Your task to perform on an android device: Open location settings Image 0: 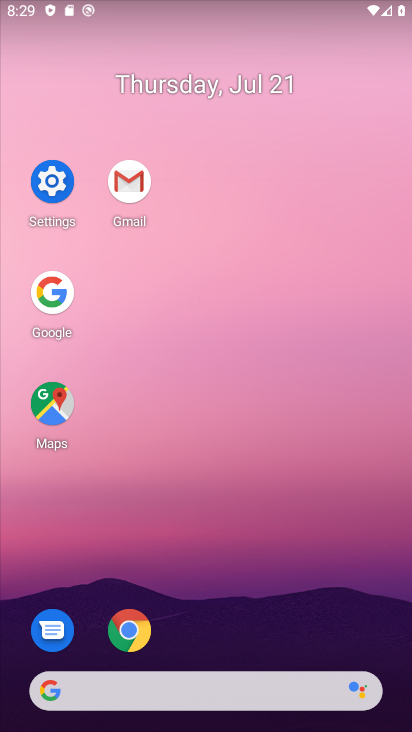
Step 0: click (46, 183)
Your task to perform on an android device: Open location settings Image 1: 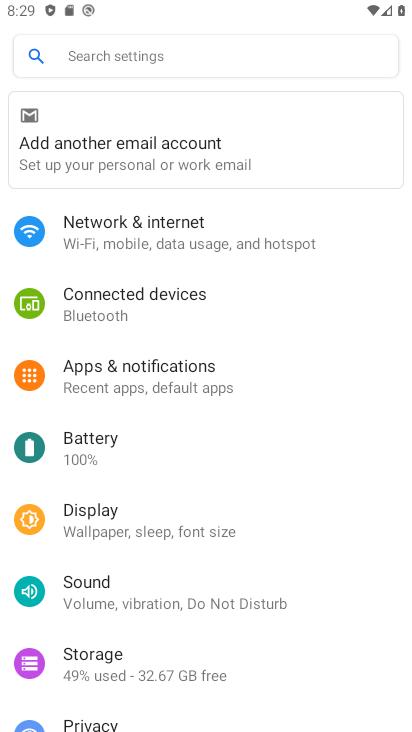
Step 1: drag from (156, 638) to (201, 328)
Your task to perform on an android device: Open location settings Image 2: 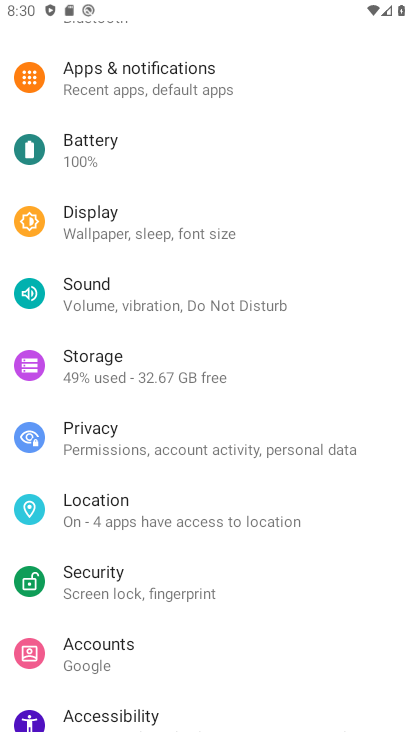
Step 2: click (143, 515)
Your task to perform on an android device: Open location settings Image 3: 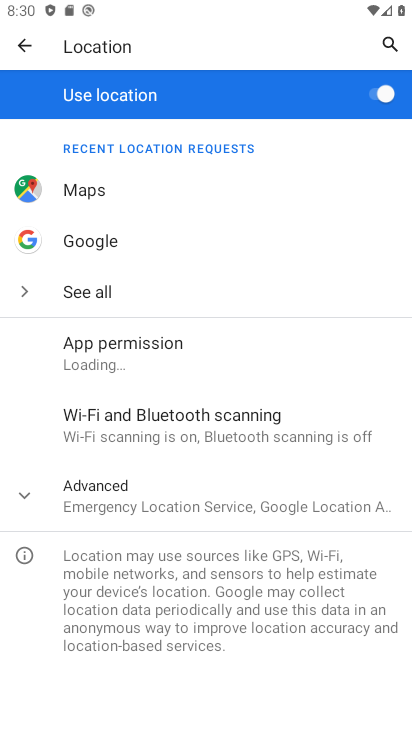
Step 3: task complete